Your task to perform on an android device: Show me productivity apps on the Play Store Image 0: 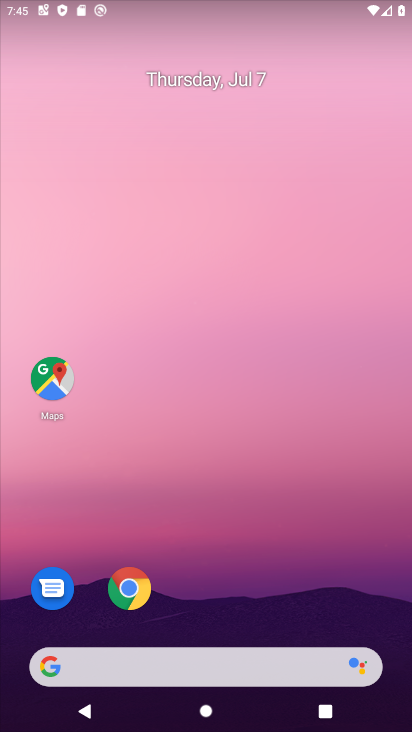
Step 0: drag from (196, 611) to (306, 160)
Your task to perform on an android device: Show me productivity apps on the Play Store Image 1: 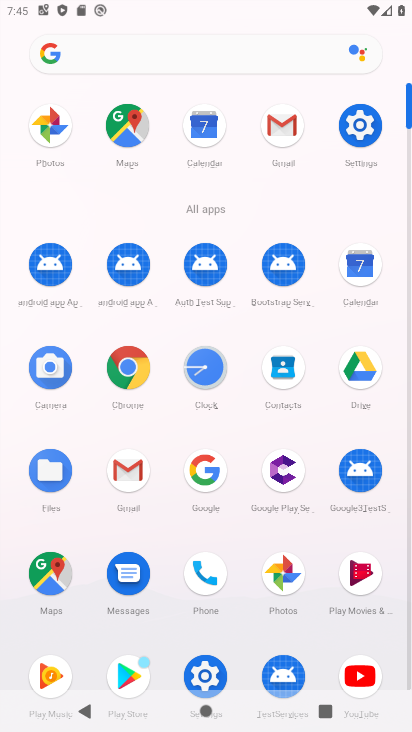
Step 1: click (119, 667)
Your task to perform on an android device: Show me productivity apps on the Play Store Image 2: 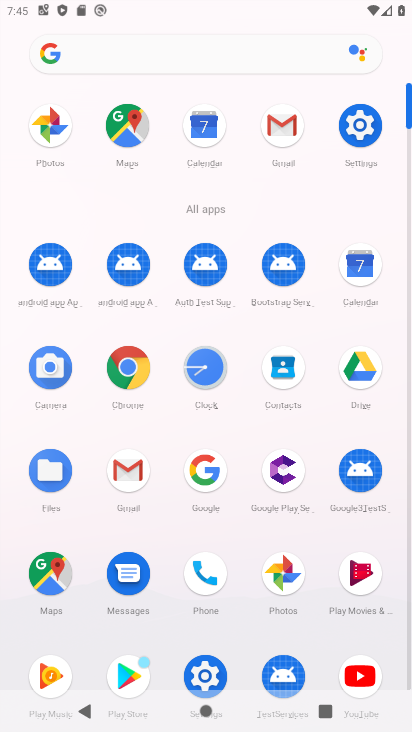
Step 2: click (120, 667)
Your task to perform on an android device: Show me productivity apps on the Play Store Image 3: 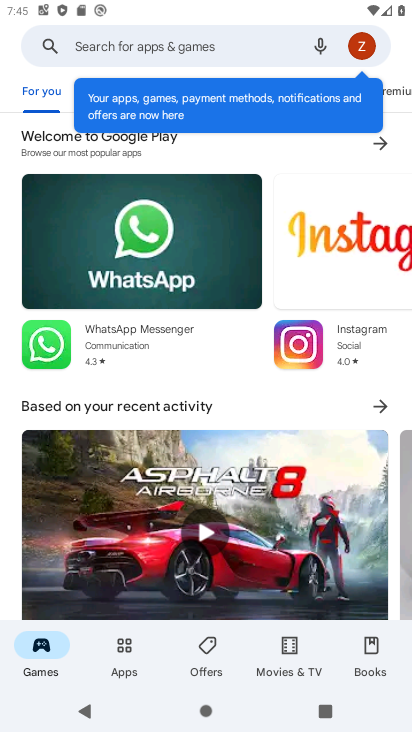
Step 3: drag from (215, 498) to (221, 84)
Your task to perform on an android device: Show me productivity apps on the Play Store Image 4: 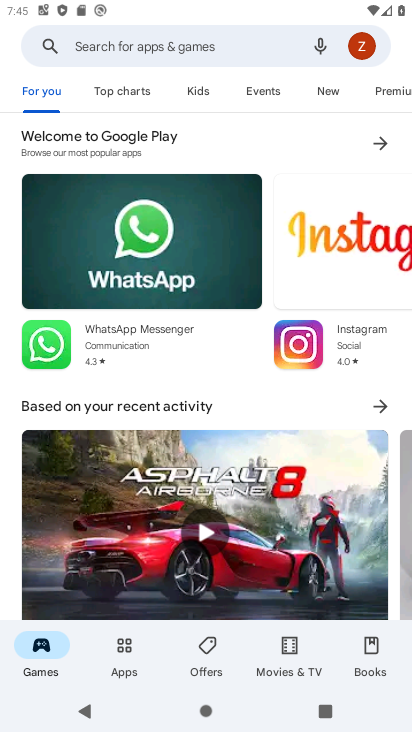
Step 4: drag from (213, 514) to (260, 192)
Your task to perform on an android device: Show me productivity apps on the Play Store Image 5: 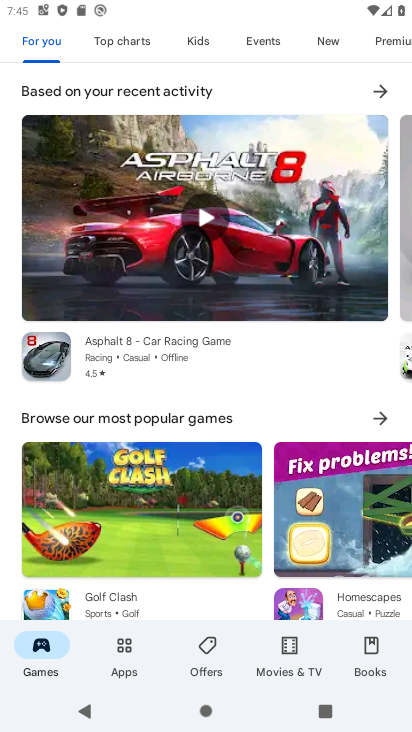
Step 5: drag from (207, 491) to (293, 75)
Your task to perform on an android device: Show me productivity apps on the Play Store Image 6: 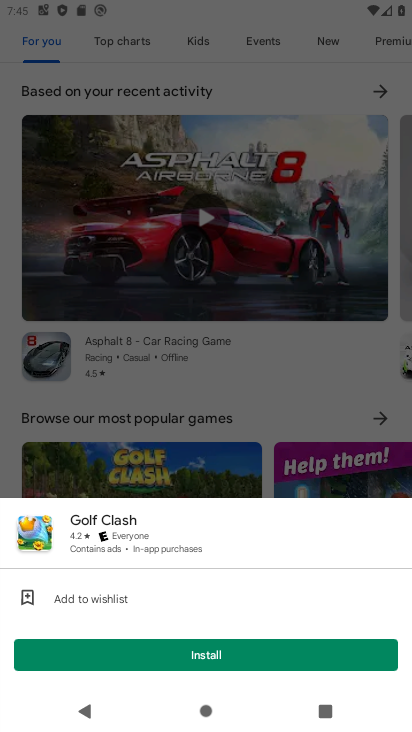
Step 6: drag from (210, 407) to (296, 115)
Your task to perform on an android device: Show me productivity apps on the Play Store Image 7: 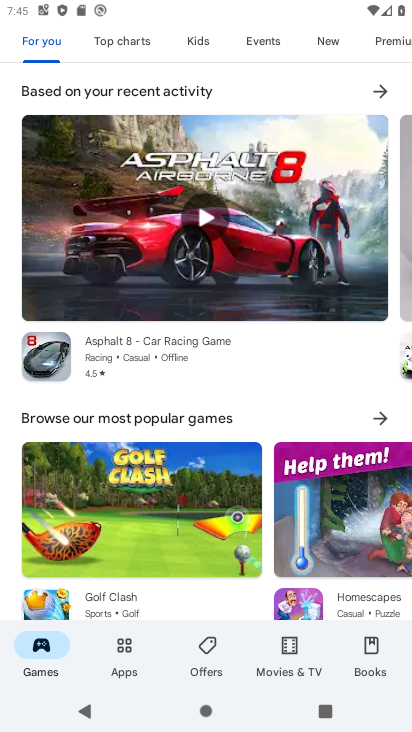
Step 7: click (250, 397)
Your task to perform on an android device: Show me productivity apps on the Play Store Image 8: 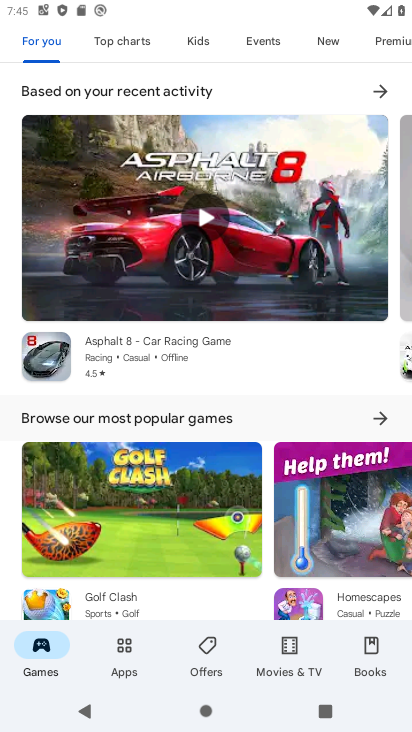
Step 8: drag from (244, 346) to (395, 234)
Your task to perform on an android device: Show me productivity apps on the Play Store Image 9: 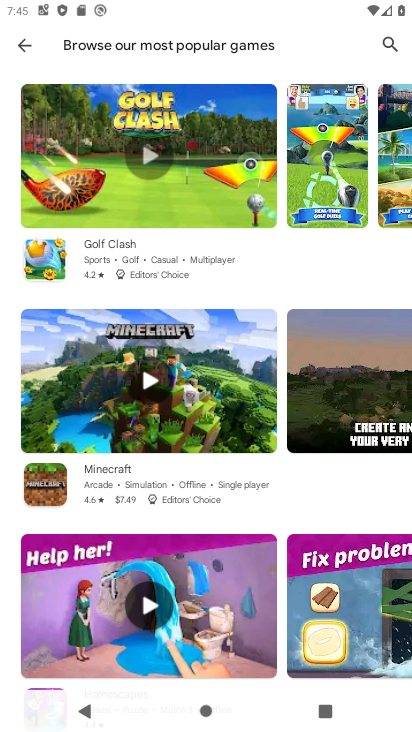
Step 9: click (39, 38)
Your task to perform on an android device: Show me productivity apps on the Play Store Image 10: 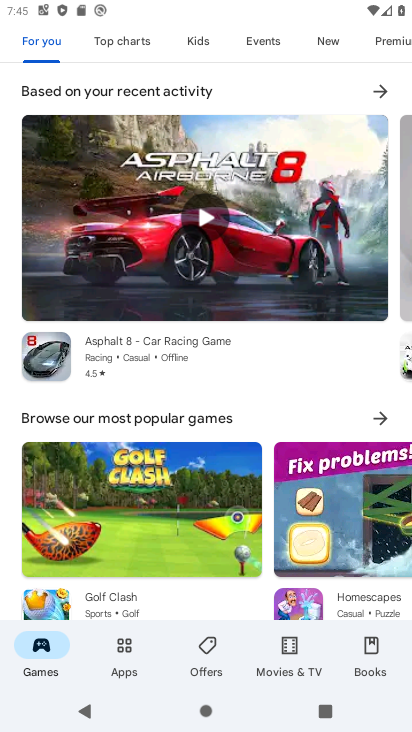
Step 10: task complete